Your task to perform on an android device: Go to display settings Image 0: 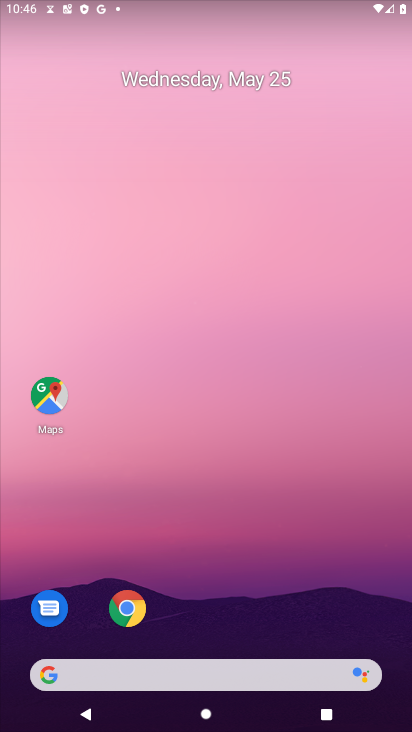
Step 0: drag from (350, 622) to (336, 22)
Your task to perform on an android device: Go to display settings Image 1: 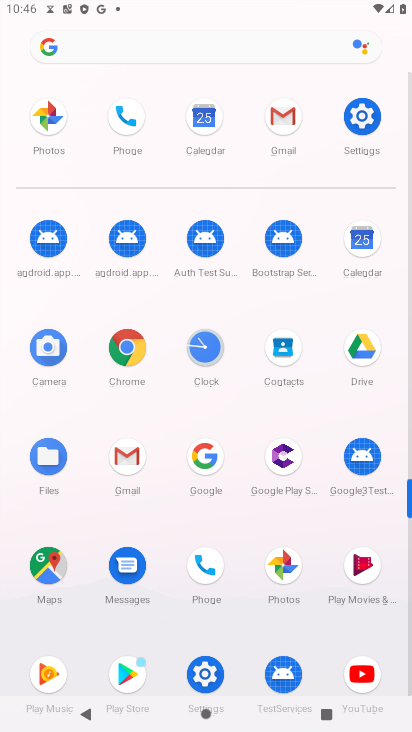
Step 1: click (370, 127)
Your task to perform on an android device: Go to display settings Image 2: 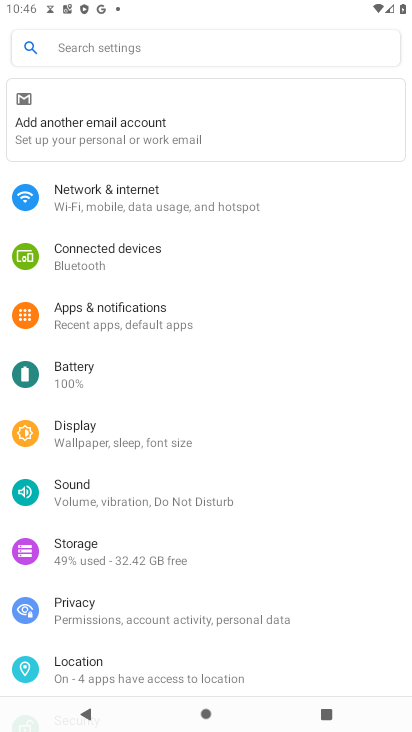
Step 2: click (115, 438)
Your task to perform on an android device: Go to display settings Image 3: 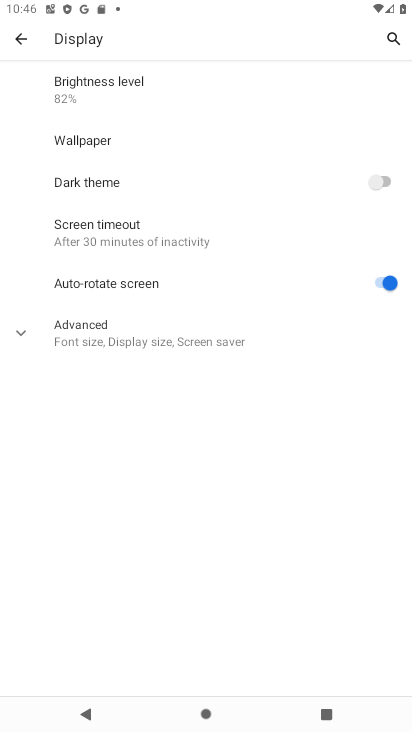
Step 3: task complete